Your task to perform on an android device: Open the Play Movies app and select the watchlist tab. Image 0: 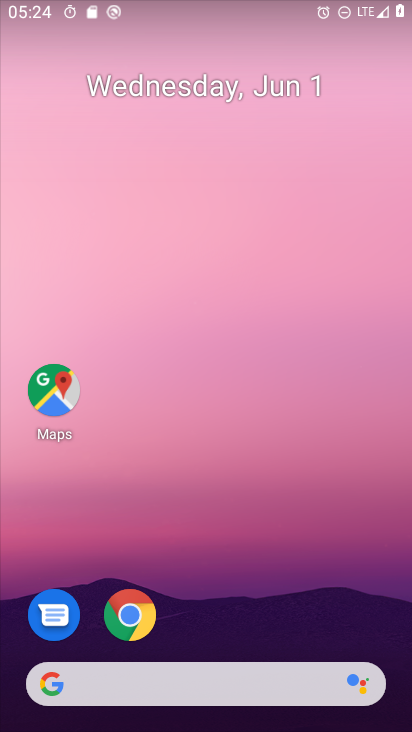
Step 0: drag from (338, 658) to (409, 205)
Your task to perform on an android device: Open the Play Movies app and select the watchlist tab. Image 1: 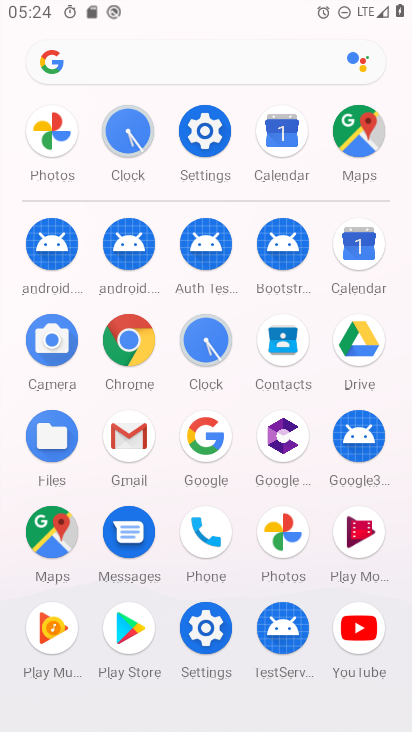
Step 1: click (358, 546)
Your task to perform on an android device: Open the Play Movies app and select the watchlist tab. Image 2: 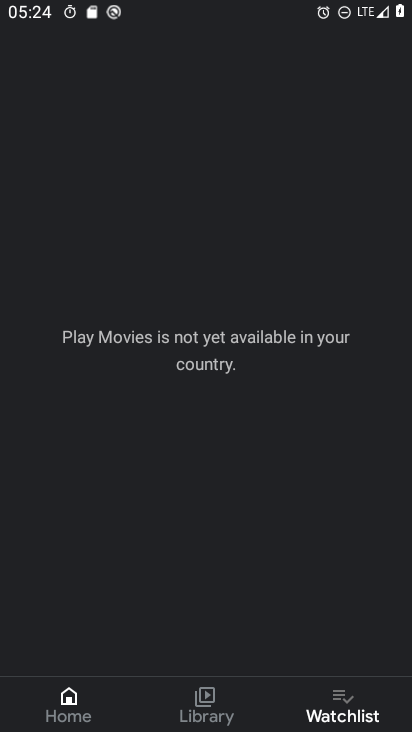
Step 2: click (343, 713)
Your task to perform on an android device: Open the Play Movies app and select the watchlist tab. Image 3: 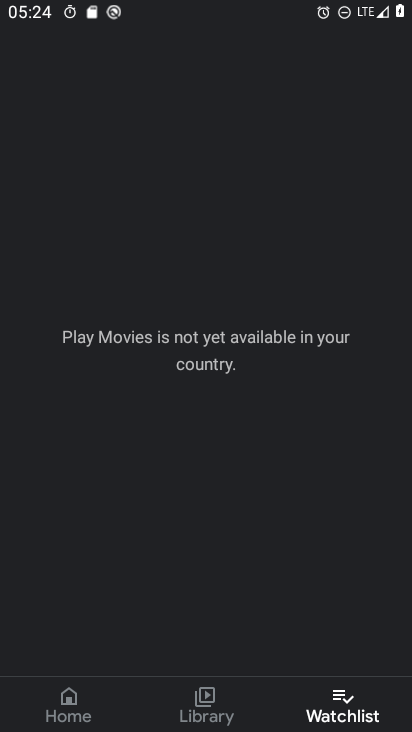
Step 3: task complete